Your task to perform on an android device: Search for a dining table on crateandbarrel.com Image 0: 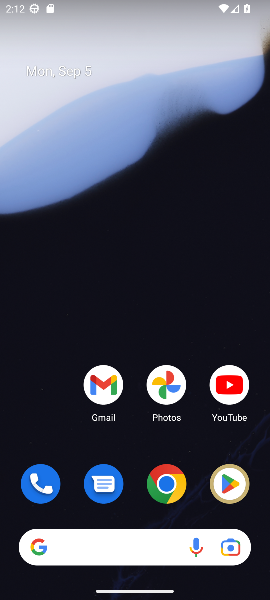
Step 0: click (168, 475)
Your task to perform on an android device: Search for a dining table on crateandbarrel.com Image 1: 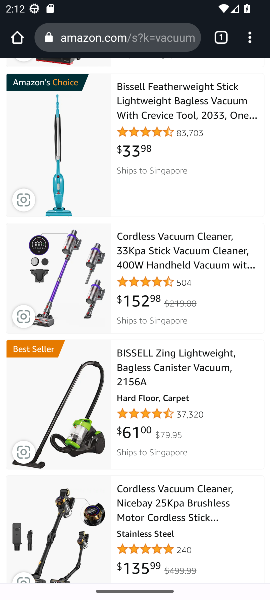
Step 1: click (145, 38)
Your task to perform on an android device: Search for a dining table on crateandbarrel.com Image 2: 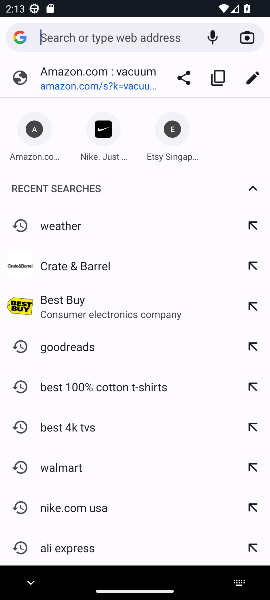
Step 2: type "crateandbarrel.com"
Your task to perform on an android device: Search for a dining table on crateandbarrel.com Image 3: 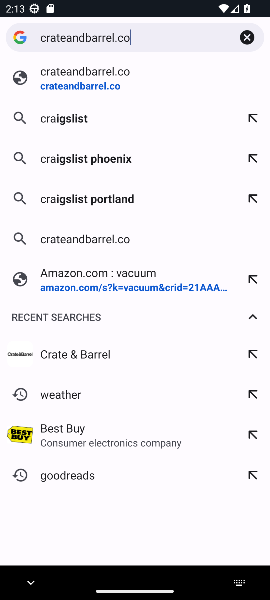
Step 3: press enter
Your task to perform on an android device: Search for a dining table on crateandbarrel.com Image 4: 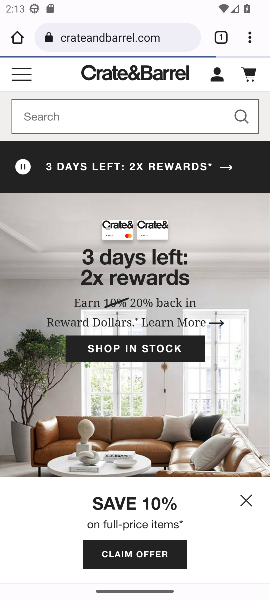
Step 4: click (128, 116)
Your task to perform on an android device: Search for a dining table on crateandbarrel.com Image 5: 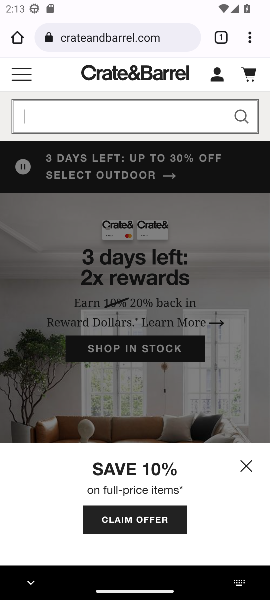
Step 5: type "dining table"
Your task to perform on an android device: Search for a dining table on crateandbarrel.com Image 6: 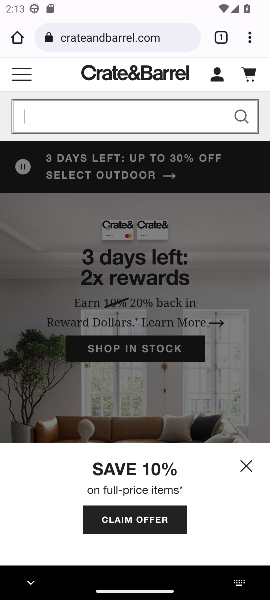
Step 6: press enter
Your task to perform on an android device: Search for a dining table on crateandbarrel.com Image 7: 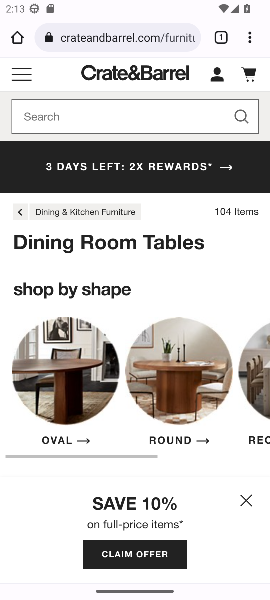
Step 7: drag from (191, 502) to (223, 208)
Your task to perform on an android device: Search for a dining table on crateandbarrel.com Image 8: 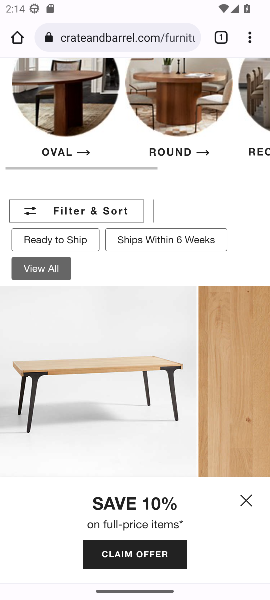
Step 8: click (242, 499)
Your task to perform on an android device: Search for a dining table on crateandbarrel.com Image 9: 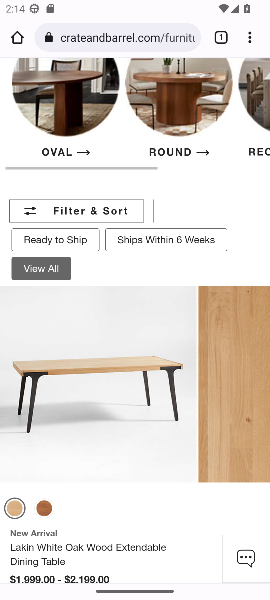
Step 9: task complete